Your task to perform on an android device: Go to network settings Image 0: 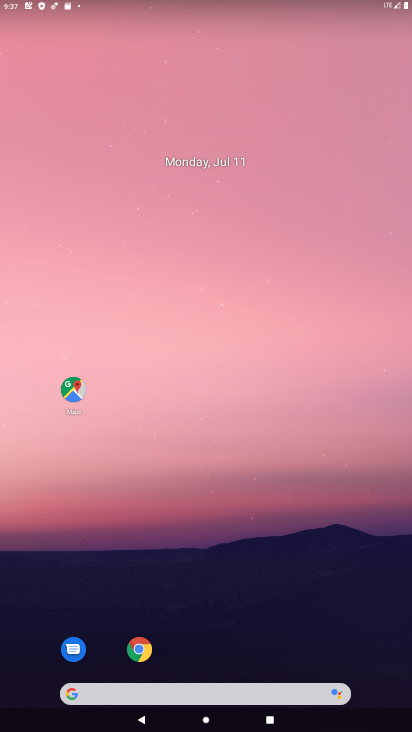
Step 0: drag from (209, 489) to (228, 7)
Your task to perform on an android device: Go to network settings Image 1: 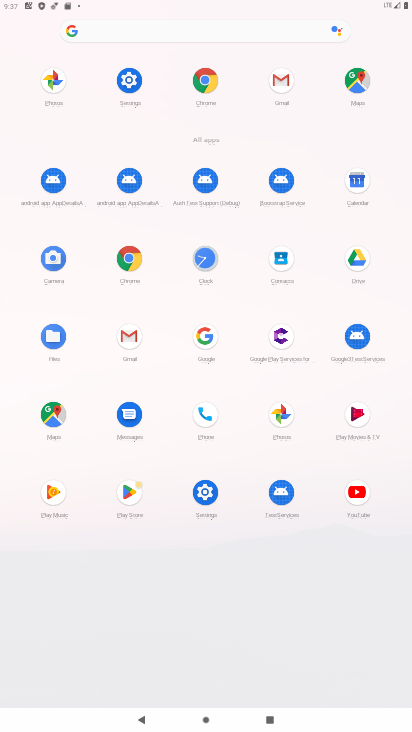
Step 1: click (215, 498)
Your task to perform on an android device: Go to network settings Image 2: 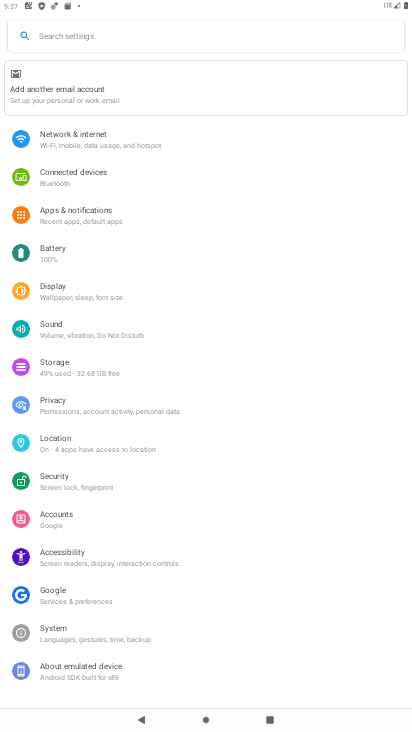
Step 2: click (116, 146)
Your task to perform on an android device: Go to network settings Image 3: 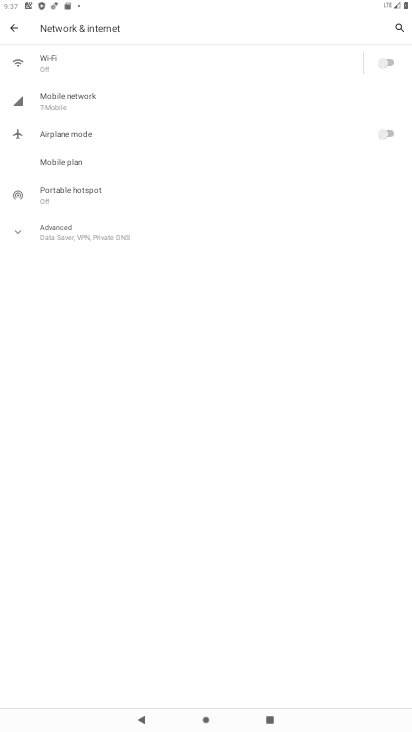
Step 3: task complete